Your task to perform on an android device: choose inbox layout in the gmail app Image 0: 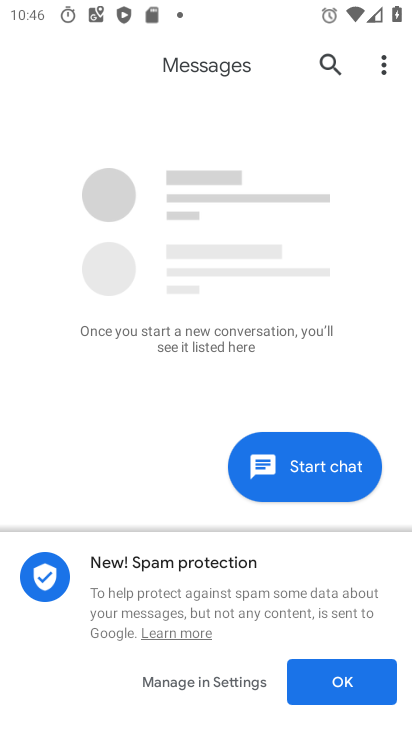
Step 0: press home button
Your task to perform on an android device: choose inbox layout in the gmail app Image 1: 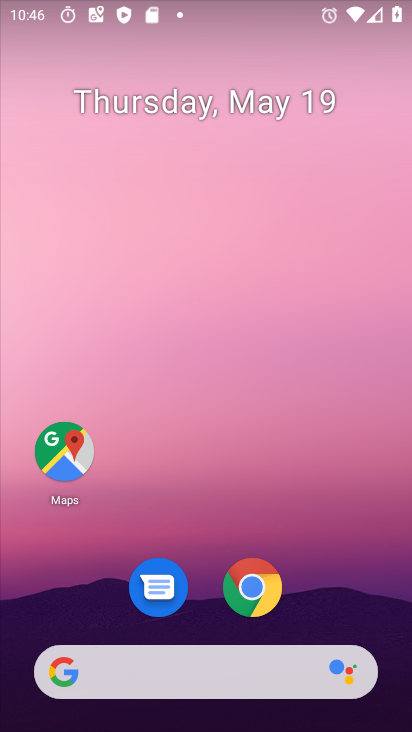
Step 1: drag from (378, 609) to (368, 136)
Your task to perform on an android device: choose inbox layout in the gmail app Image 2: 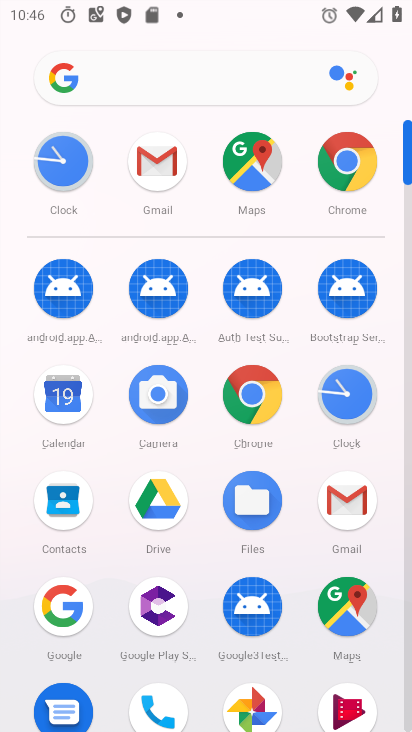
Step 2: click (352, 511)
Your task to perform on an android device: choose inbox layout in the gmail app Image 3: 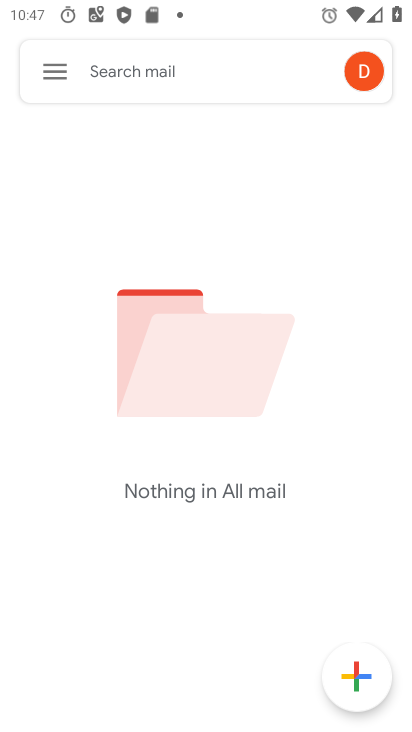
Step 3: click (59, 76)
Your task to perform on an android device: choose inbox layout in the gmail app Image 4: 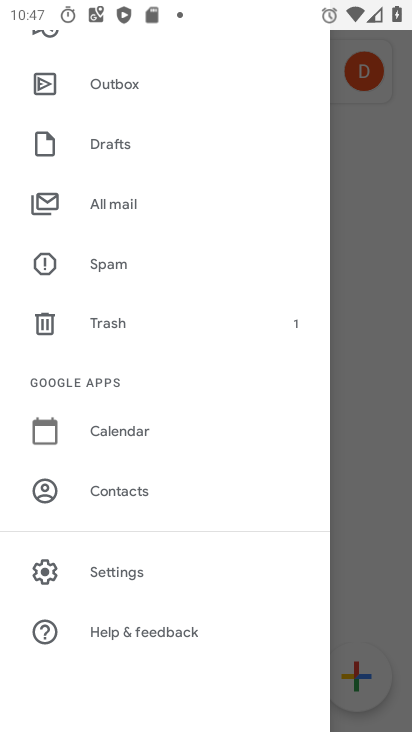
Step 4: click (130, 576)
Your task to perform on an android device: choose inbox layout in the gmail app Image 5: 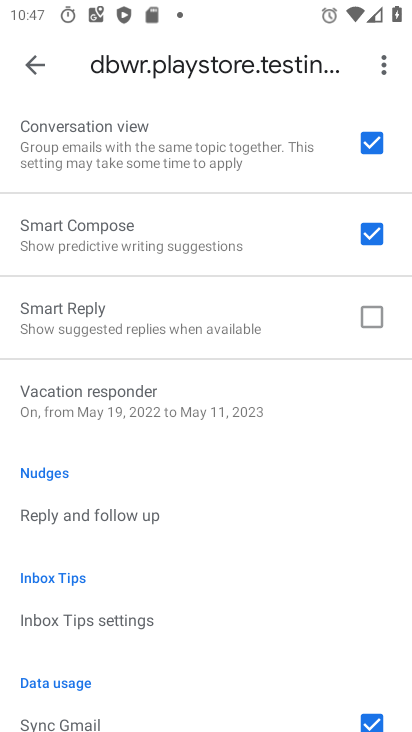
Step 5: drag from (149, 188) to (165, 705)
Your task to perform on an android device: choose inbox layout in the gmail app Image 6: 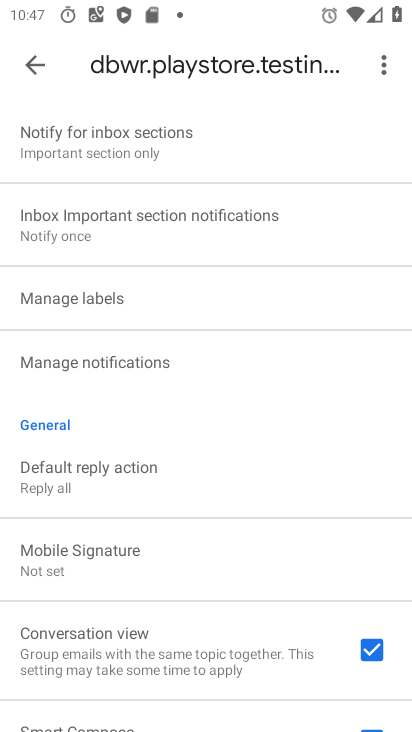
Step 6: drag from (236, 315) to (230, 629)
Your task to perform on an android device: choose inbox layout in the gmail app Image 7: 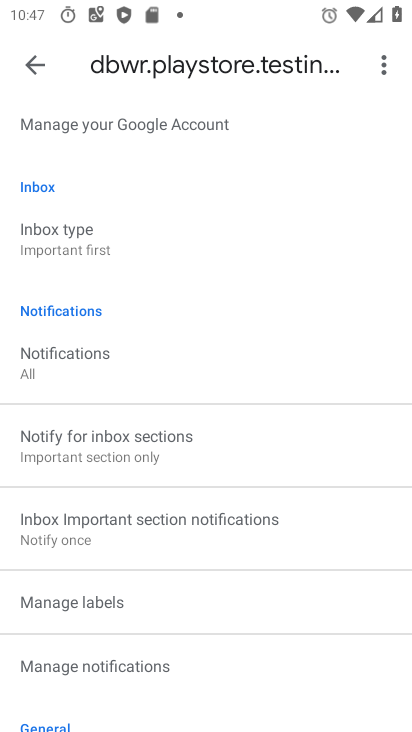
Step 7: click (110, 242)
Your task to perform on an android device: choose inbox layout in the gmail app Image 8: 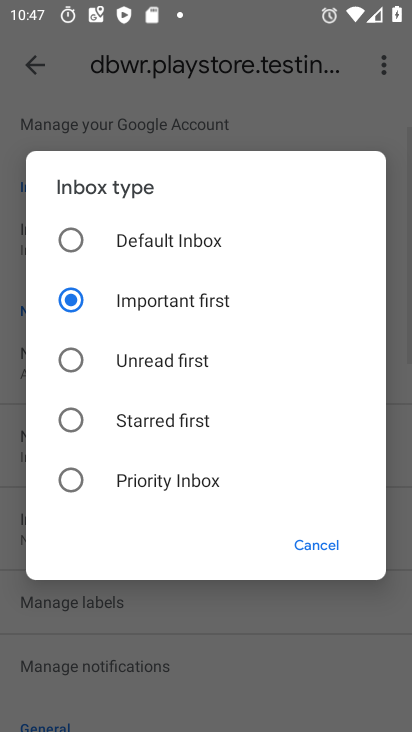
Step 8: click (75, 231)
Your task to perform on an android device: choose inbox layout in the gmail app Image 9: 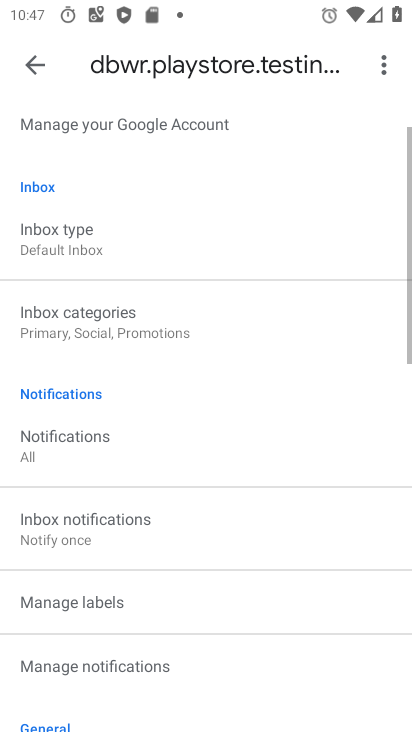
Step 9: task complete